Your task to perform on an android device: open chrome and create a bookmark for the current page Image 0: 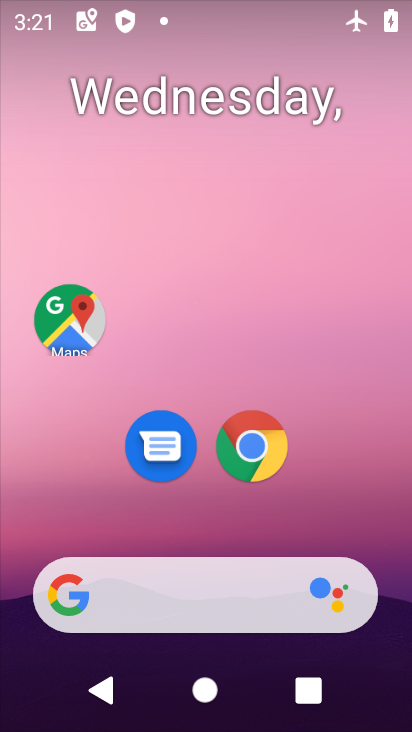
Step 0: click (252, 440)
Your task to perform on an android device: open chrome and create a bookmark for the current page Image 1: 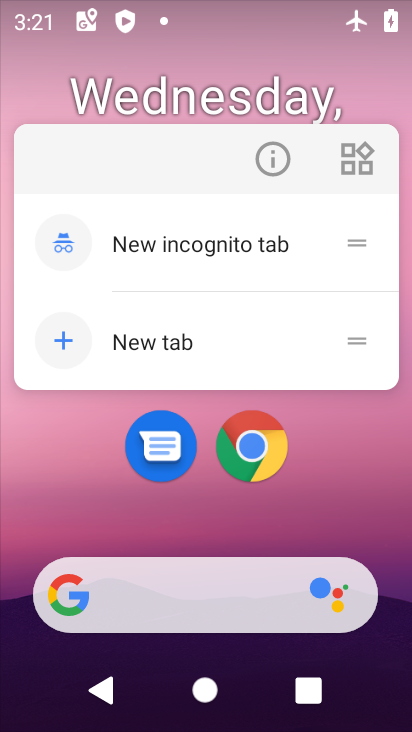
Step 1: click (252, 440)
Your task to perform on an android device: open chrome and create a bookmark for the current page Image 2: 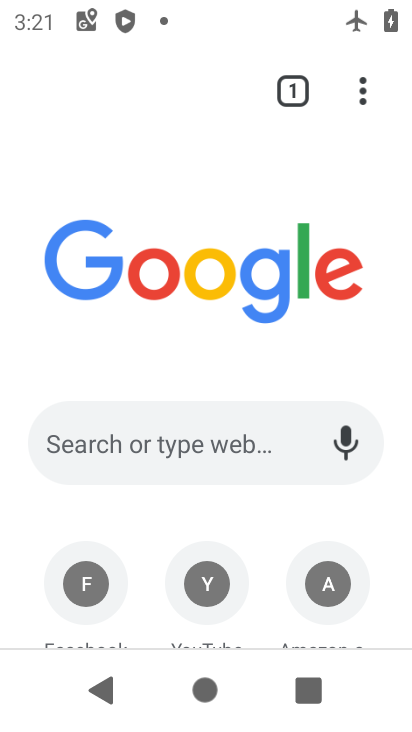
Step 2: click (352, 94)
Your task to perform on an android device: open chrome and create a bookmark for the current page Image 3: 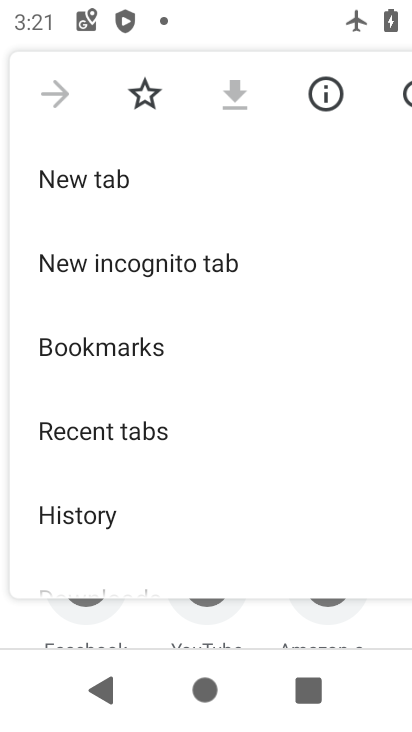
Step 3: drag from (217, 511) to (235, 580)
Your task to perform on an android device: open chrome and create a bookmark for the current page Image 4: 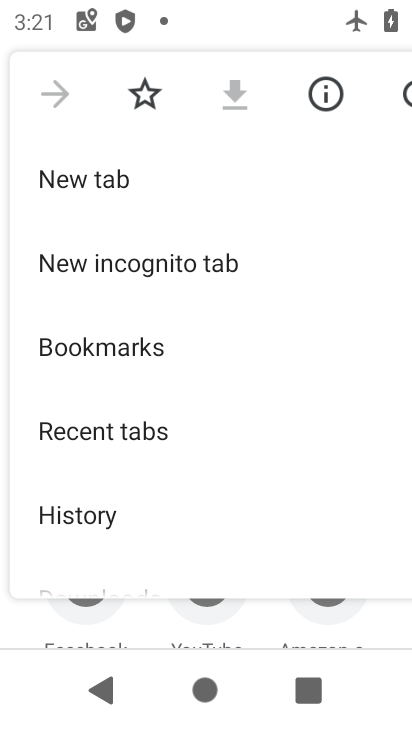
Step 4: click (144, 93)
Your task to perform on an android device: open chrome and create a bookmark for the current page Image 5: 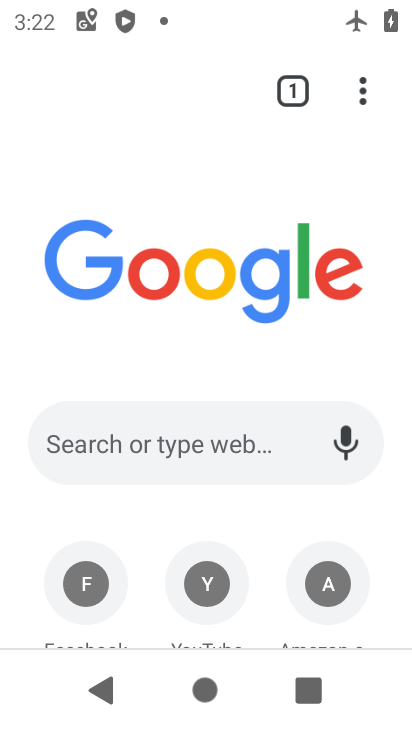
Step 5: task complete